Your task to perform on an android device: check the backup settings in the google photos Image 0: 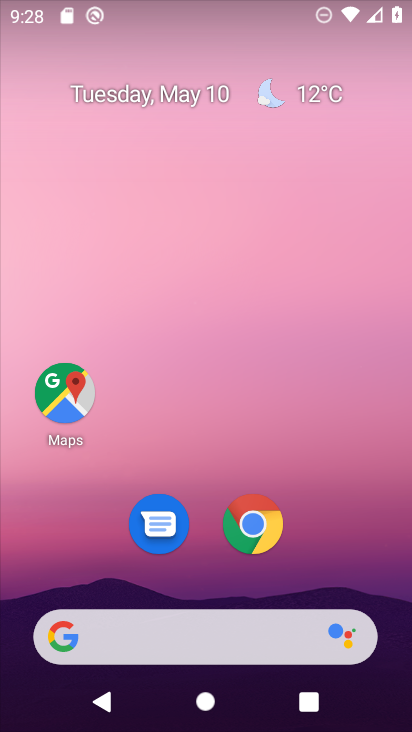
Step 0: drag from (339, 527) to (340, 56)
Your task to perform on an android device: check the backup settings in the google photos Image 1: 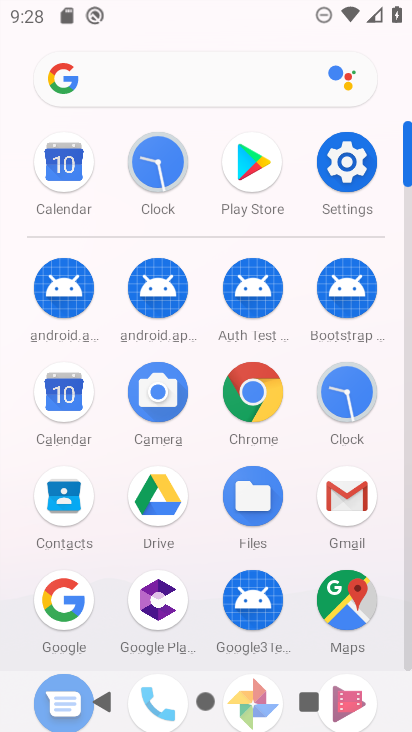
Step 1: drag from (209, 475) to (209, 221)
Your task to perform on an android device: check the backup settings in the google photos Image 2: 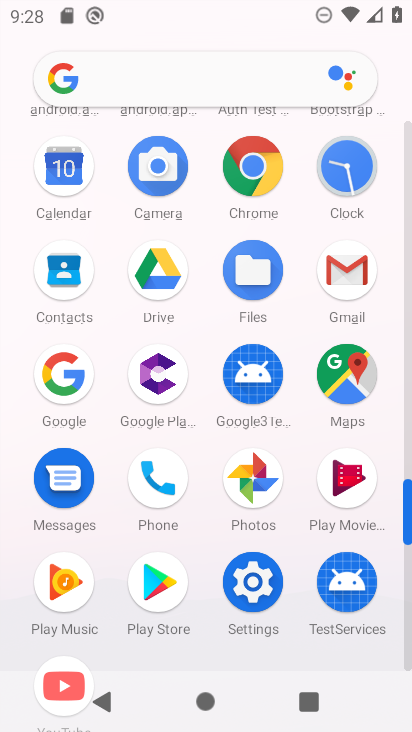
Step 2: click (246, 468)
Your task to perform on an android device: check the backup settings in the google photos Image 3: 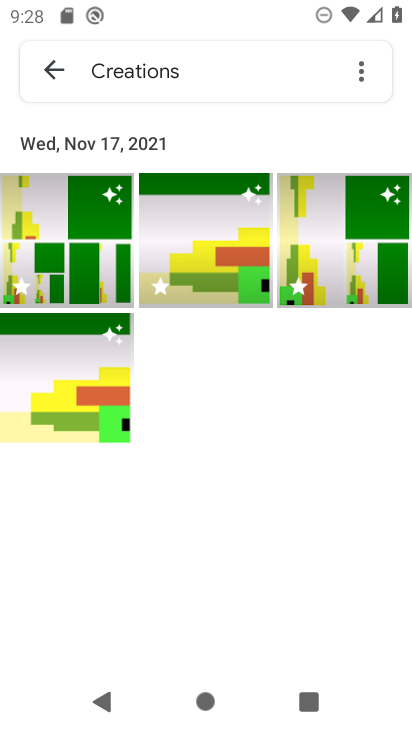
Step 3: click (56, 66)
Your task to perform on an android device: check the backup settings in the google photos Image 4: 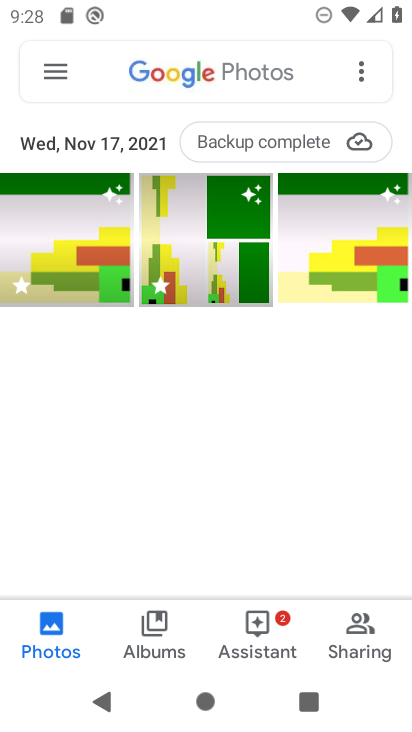
Step 4: click (54, 61)
Your task to perform on an android device: check the backup settings in the google photos Image 5: 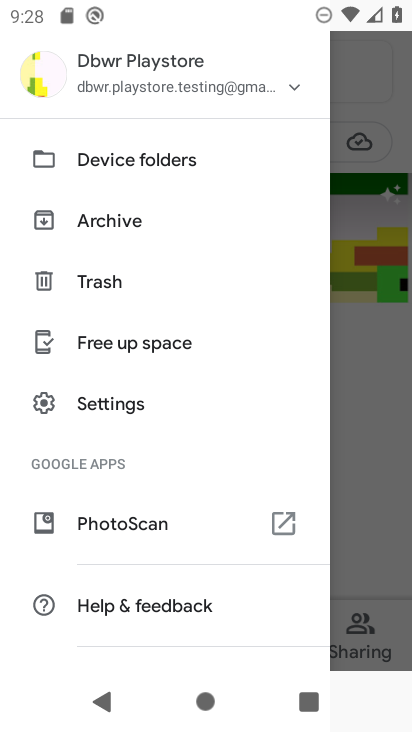
Step 5: click (92, 397)
Your task to perform on an android device: check the backup settings in the google photos Image 6: 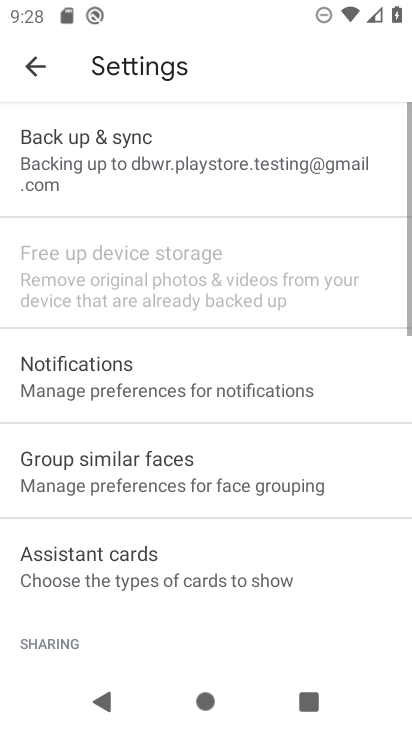
Step 6: click (151, 132)
Your task to perform on an android device: check the backup settings in the google photos Image 7: 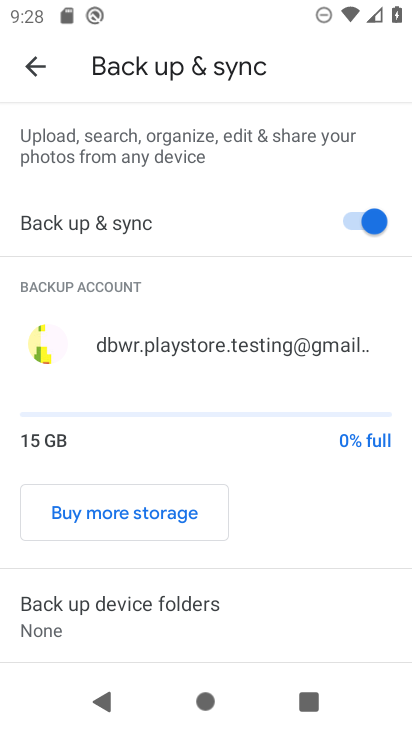
Step 7: task complete